Your task to perform on an android device: Go to Android settings Image 0: 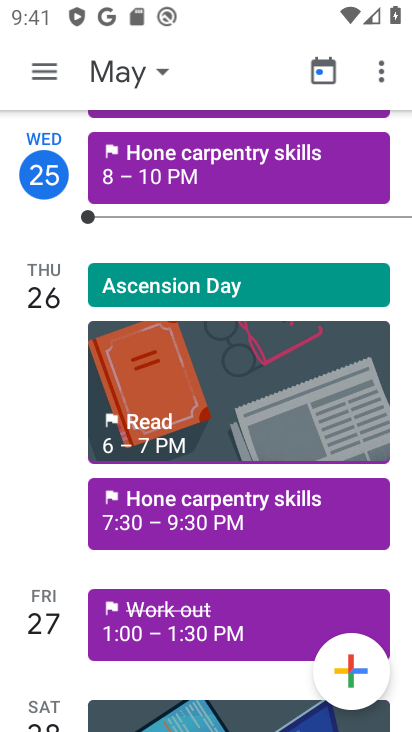
Step 0: press home button
Your task to perform on an android device: Go to Android settings Image 1: 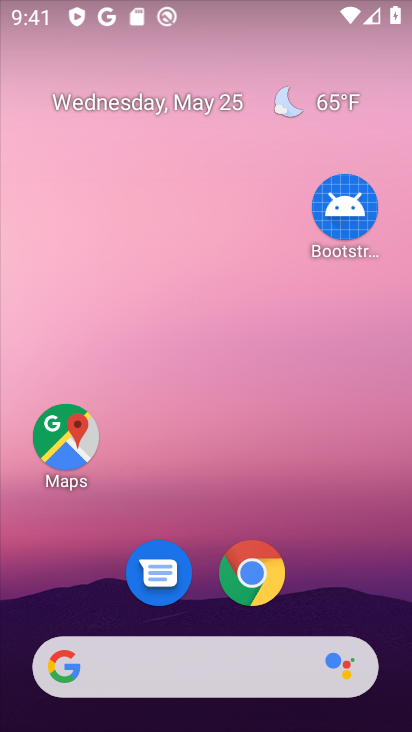
Step 1: drag from (389, 632) to (361, 228)
Your task to perform on an android device: Go to Android settings Image 2: 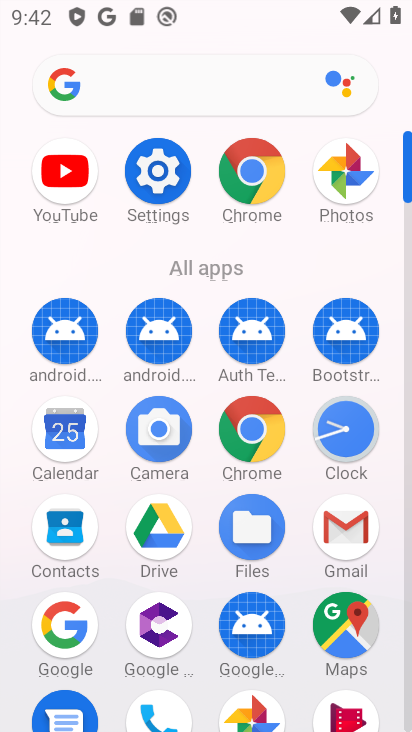
Step 2: click (138, 174)
Your task to perform on an android device: Go to Android settings Image 3: 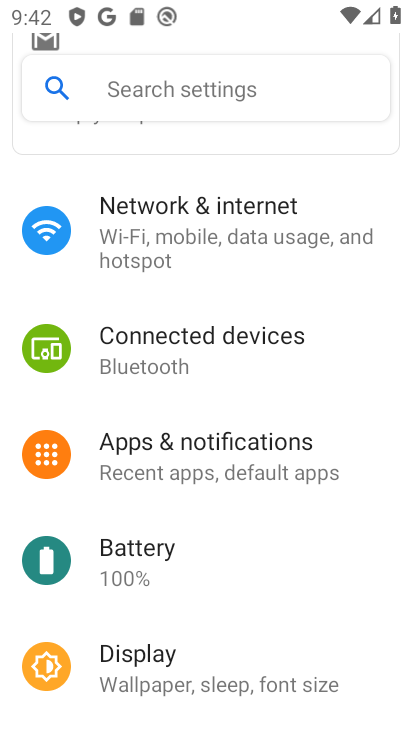
Step 3: task complete